Your task to perform on an android device: star an email in the gmail app Image 0: 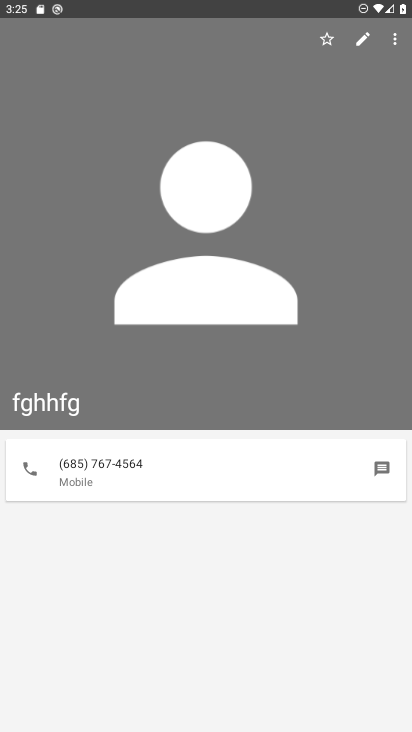
Step 0: press home button
Your task to perform on an android device: star an email in the gmail app Image 1: 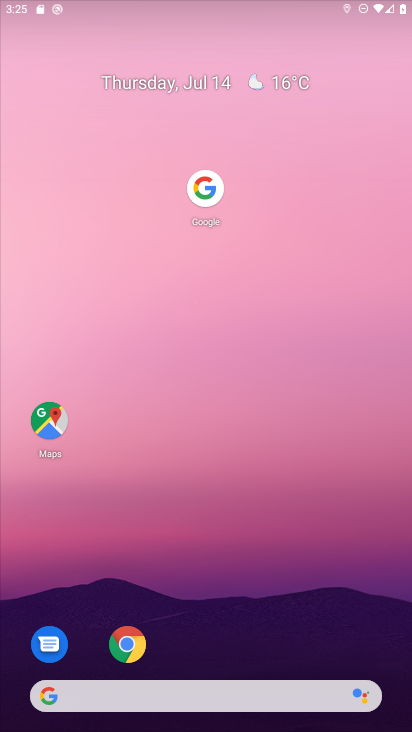
Step 1: drag from (195, 540) to (195, 222)
Your task to perform on an android device: star an email in the gmail app Image 2: 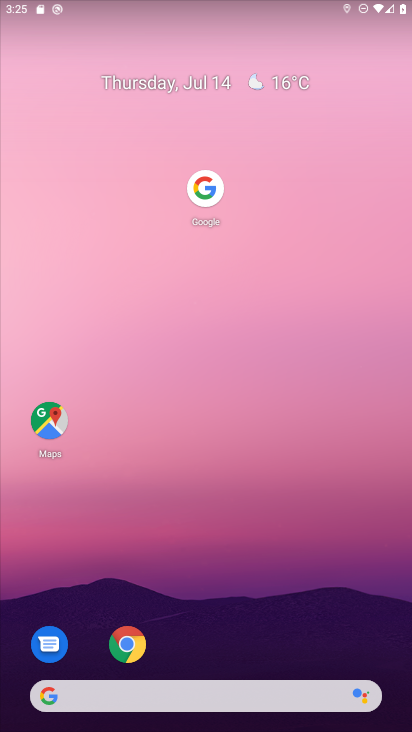
Step 2: drag from (216, 661) to (216, 76)
Your task to perform on an android device: star an email in the gmail app Image 3: 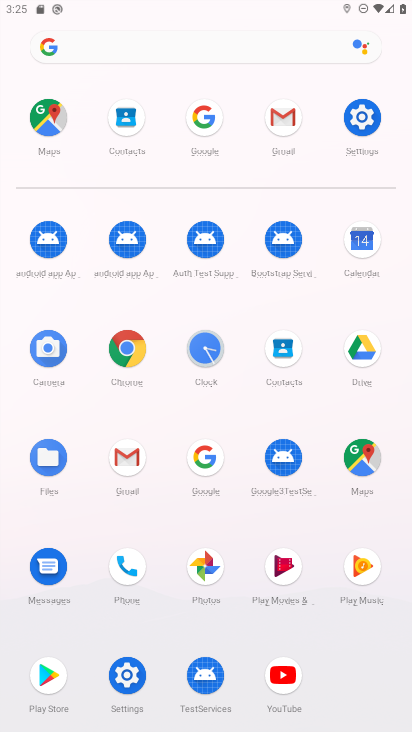
Step 3: click (267, 122)
Your task to perform on an android device: star an email in the gmail app Image 4: 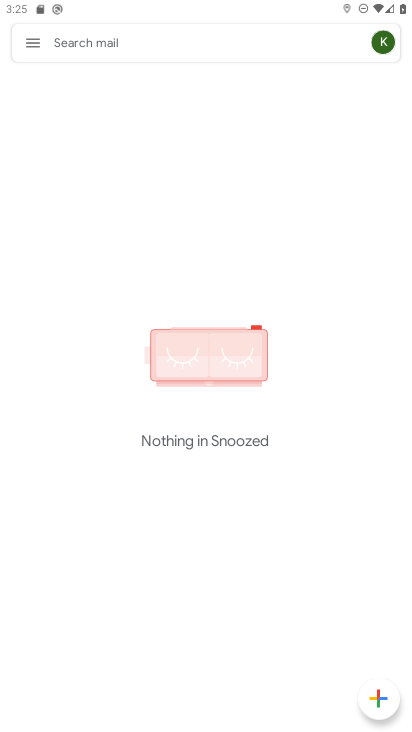
Step 4: click (29, 47)
Your task to perform on an android device: star an email in the gmail app Image 5: 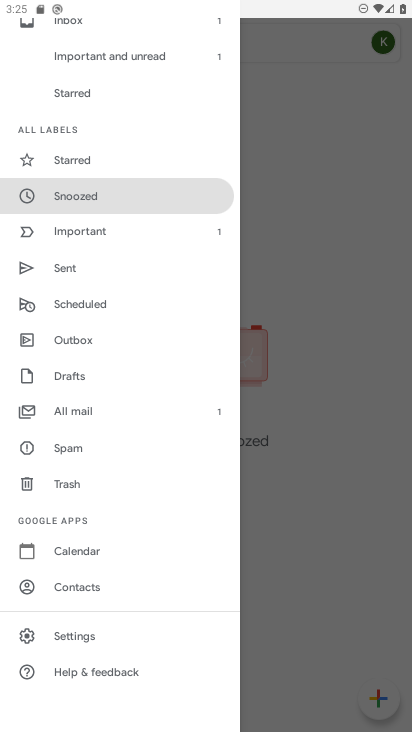
Step 5: click (93, 404)
Your task to perform on an android device: star an email in the gmail app Image 6: 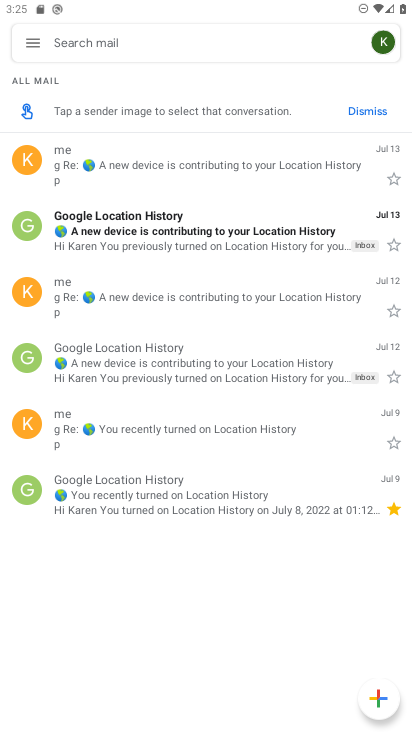
Step 6: click (391, 181)
Your task to perform on an android device: star an email in the gmail app Image 7: 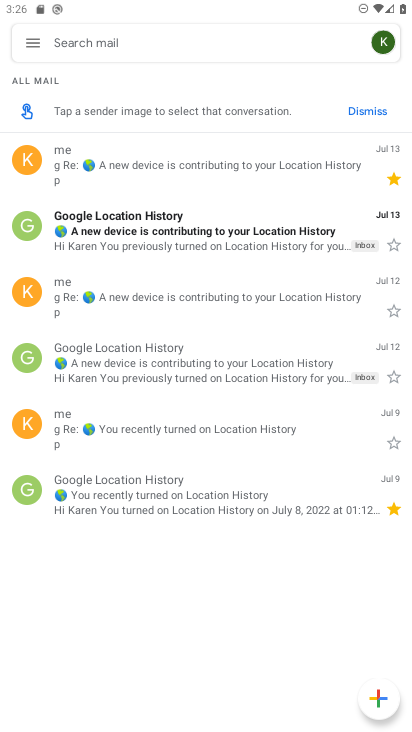
Step 7: task complete